Your task to perform on an android device: add a contact in the contacts app Image 0: 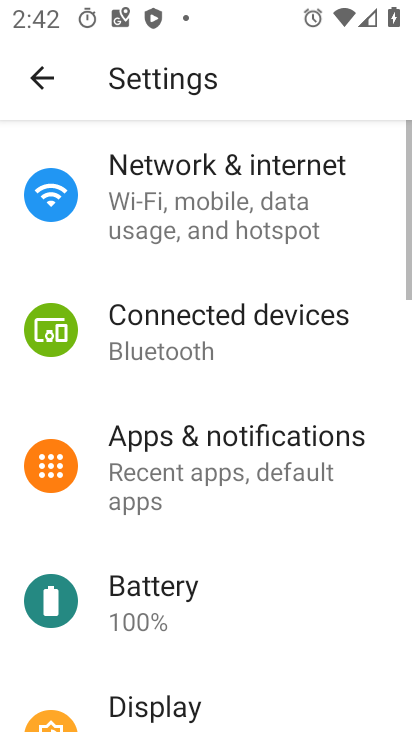
Step 0: press home button
Your task to perform on an android device: add a contact in the contacts app Image 1: 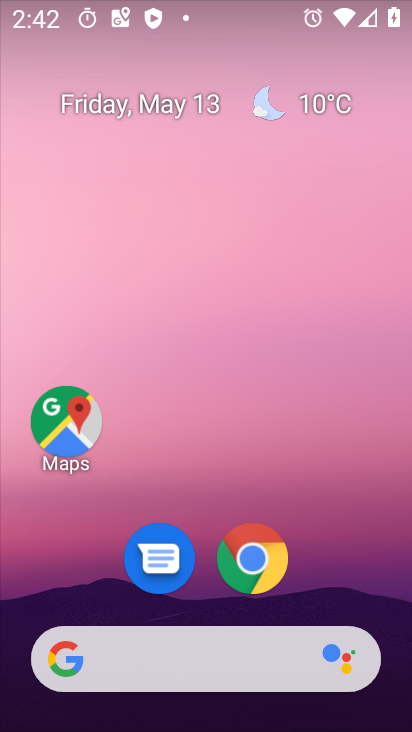
Step 1: drag from (207, 594) to (194, 309)
Your task to perform on an android device: add a contact in the contacts app Image 2: 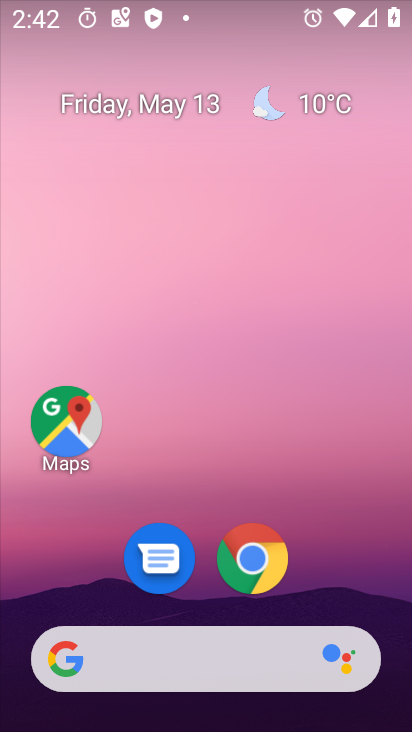
Step 2: drag from (207, 613) to (179, 222)
Your task to perform on an android device: add a contact in the contacts app Image 3: 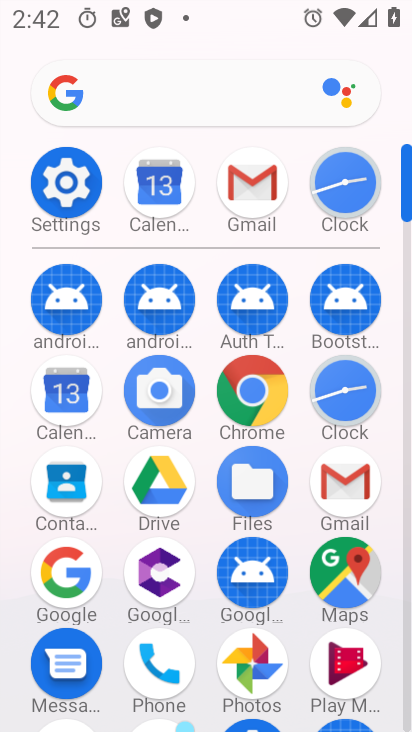
Step 3: click (78, 477)
Your task to perform on an android device: add a contact in the contacts app Image 4: 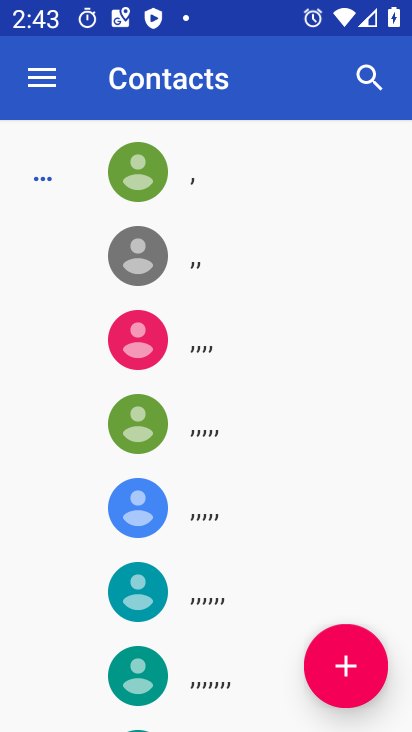
Step 4: click (325, 672)
Your task to perform on an android device: add a contact in the contacts app Image 5: 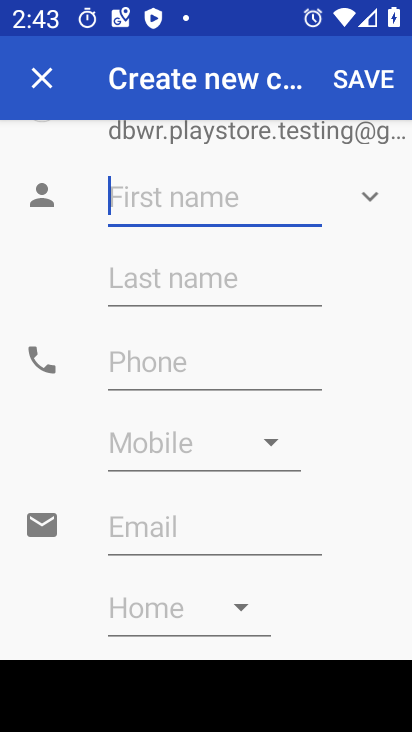
Step 5: type "hjjvyh"
Your task to perform on an android device: add a contact in the contacts app Image 6: 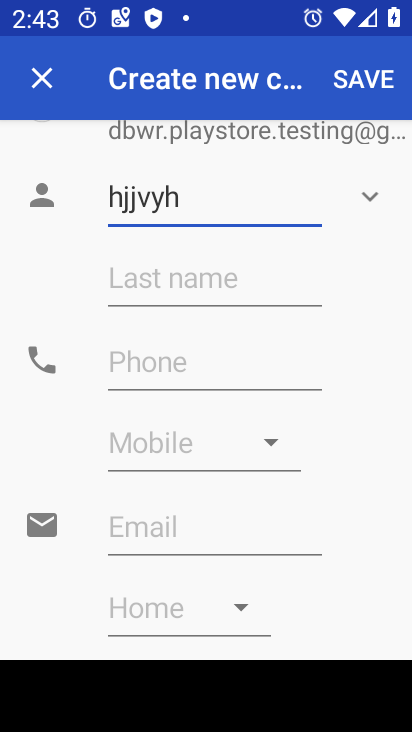
Step 6: click (217, 376)
Your task to perform on an android device: add a contact in the contacts app Image 7: 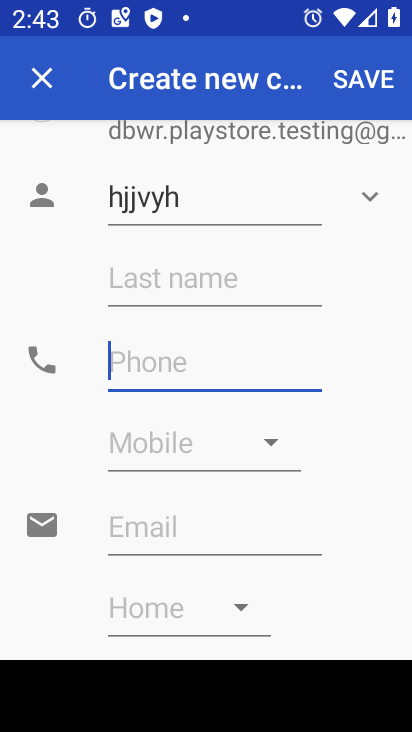
Step 7: type "788577577"
Your task to perform on an android device: add a contact in the contacts app Image 8: 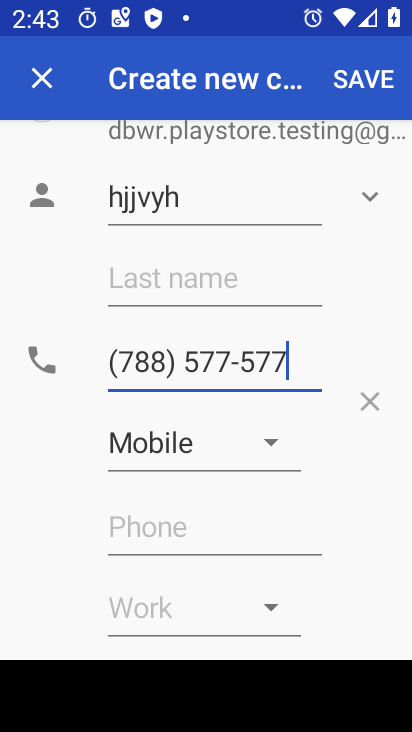
Step 8: click (362, 84)
Your task to perform on an android device: add a contact in the contacts app Image 9: 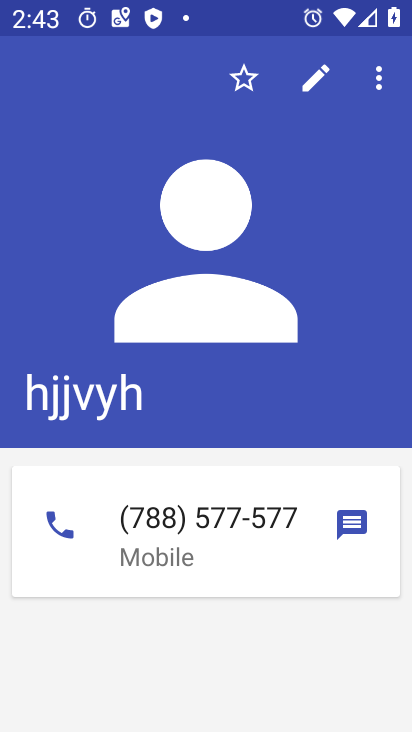
Step 9: task complete